Your task to perform on an android device: allow notifications from all sites in the chrome app Image 0: 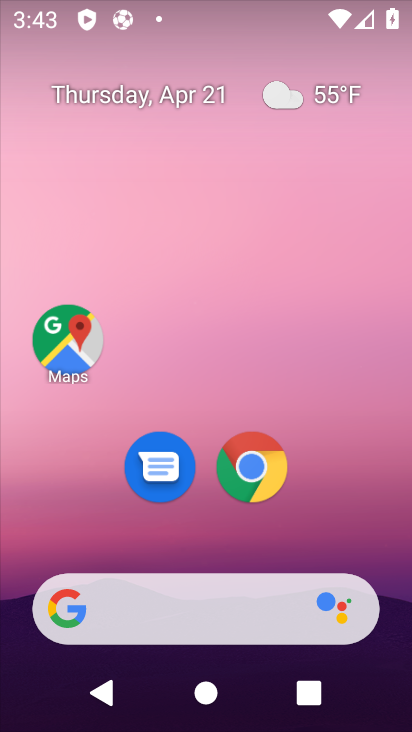
Step 0: drag from (246, 629) to (266, 225)
Your task to perform on an android device: allow notifications from all sites in the chrome app Image 1: 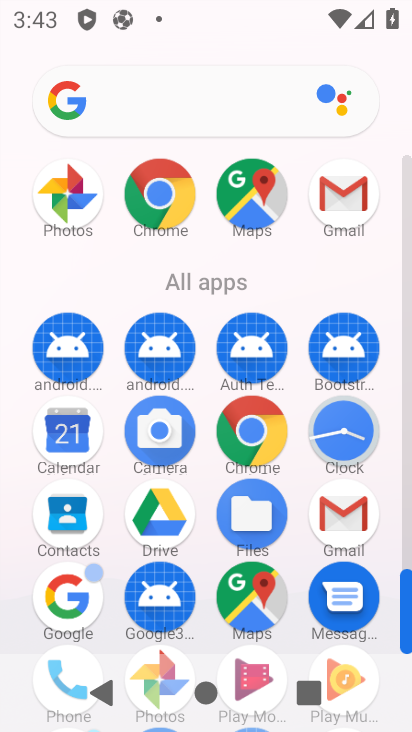
Step 1: click (241, 433)
Your task to perform on an android device: allow notifications from all sites in the chrome app Image 2: 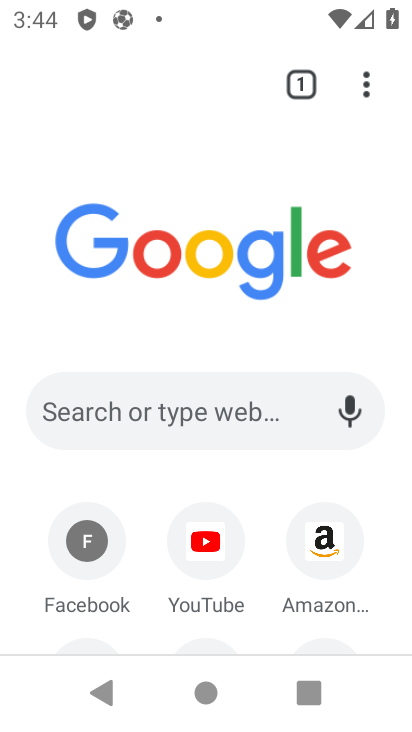
Step 2: drag from (365, 84) to (270, 398)
Your task to perform on an android device: allow notifications from all sites in the chrome app Image 3: 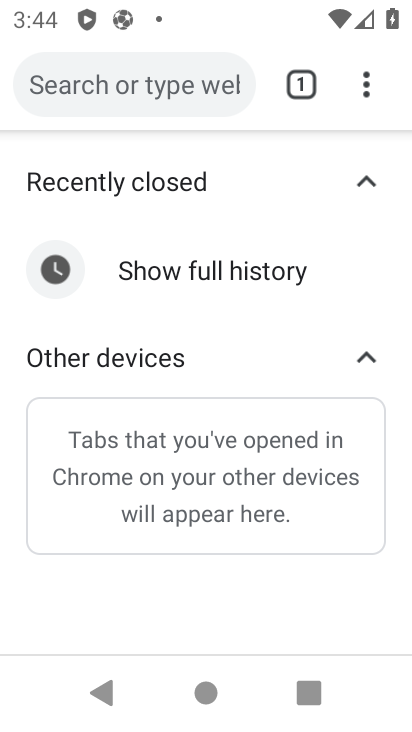
Step 3: click (364, 88)
Your task to perform on an android device: allow notifications from all sites in the chrome app Image 4: 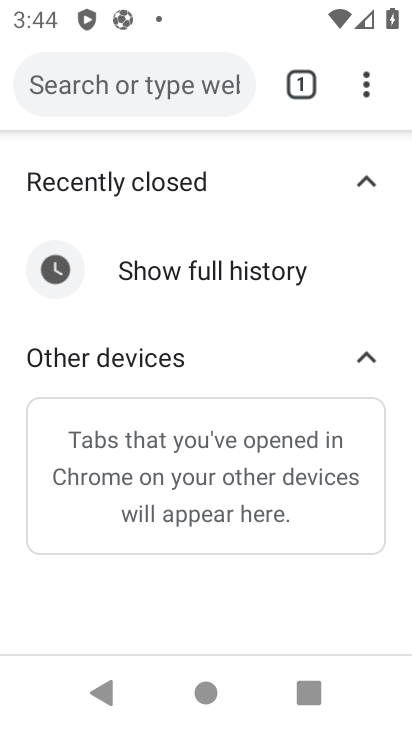
Step 4: drag from (364, 88) to (98, 520)
Your task to perform on an android device: allow notifications from all sites in the chrome app Image 5: 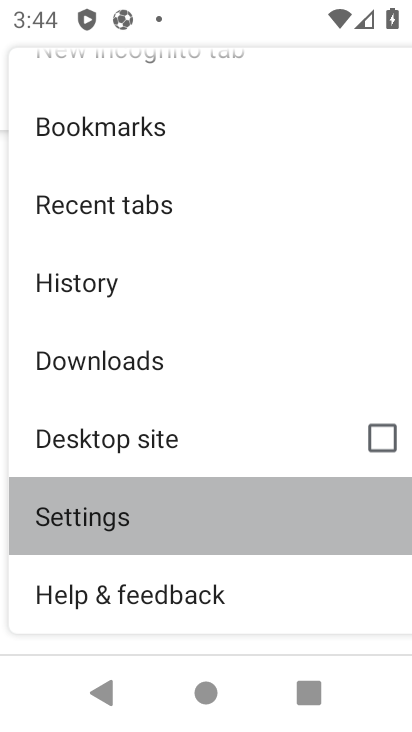
Step 5: click (98, 520)
Your task to perform on an android device: allow notifications from all sites in the chrome app Image 6: 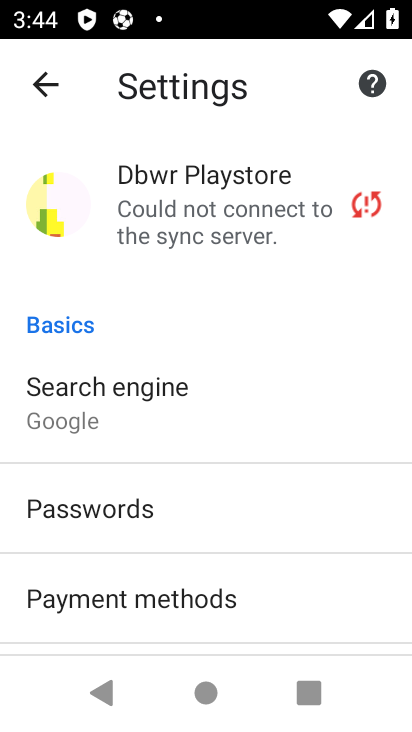
Step 6: drag from (137, 542) to (114, 237)
Your task to perform on an android device: allow notifications from all sites in the chrome app Image 7: 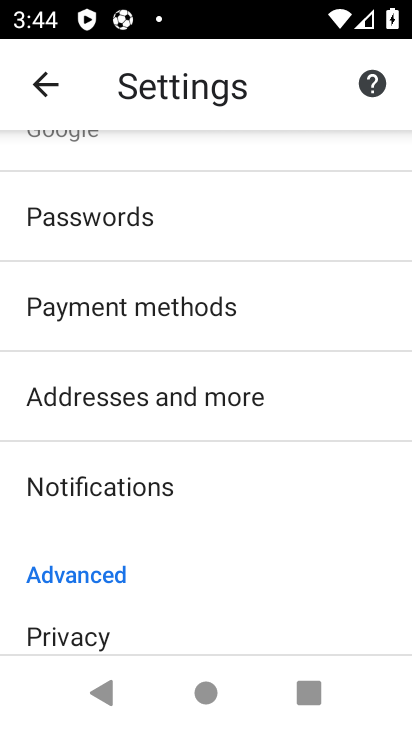
Step 7: click (102, 474)
Your task to perform on an android device: allow notifications from all sites in the chrome app Image 8: 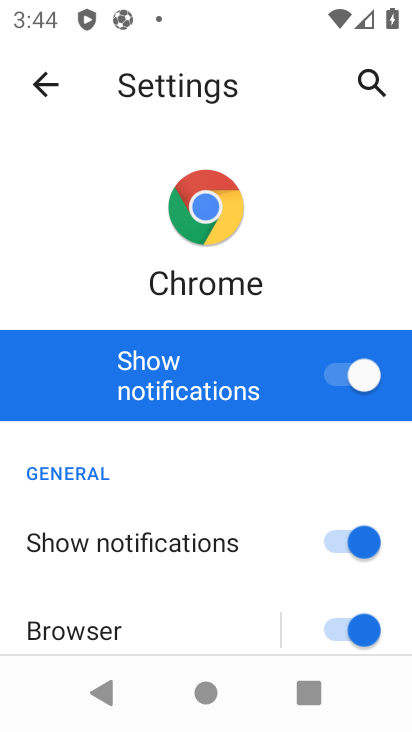
Step 8: task complete